Your task to perform on an android device: uninstall "Firefox Browser" Image 0: 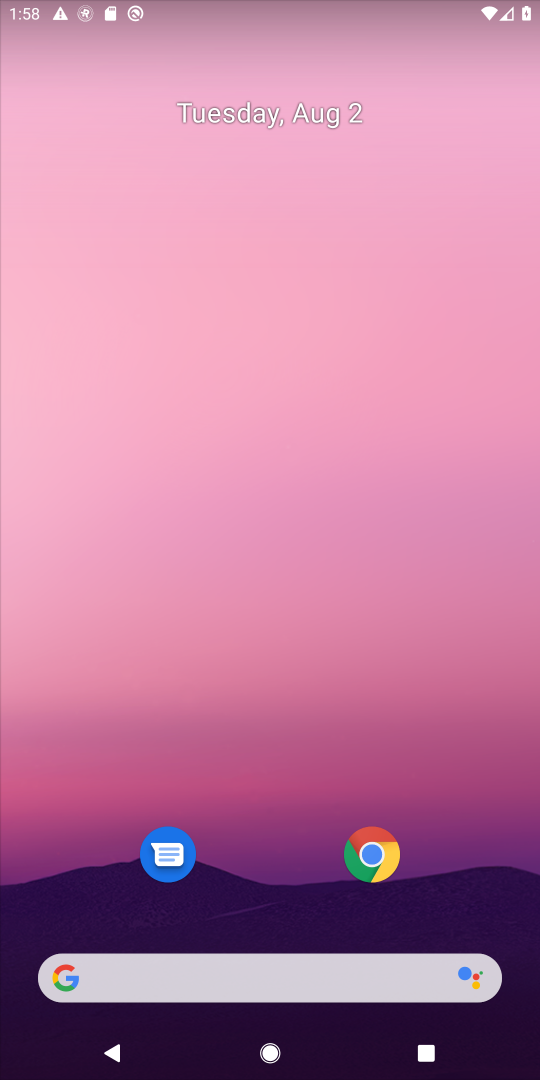
Step 0: drag from (305, 1057) to (230, 170)
Your task to perform on an android device: uninstall "Firefox Browser" Image 1: 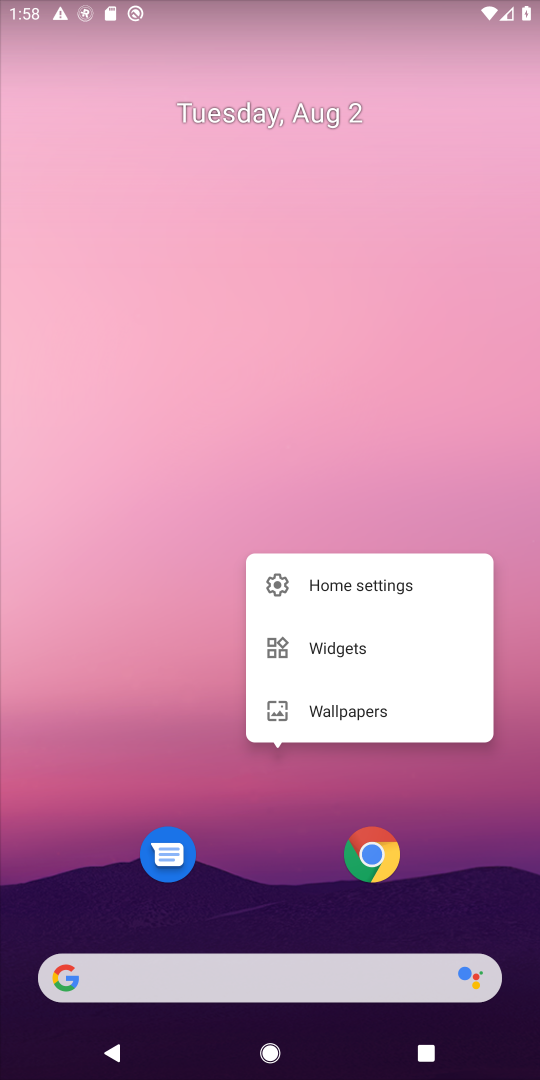
Step 1: click (264, 346)
Your task to perform on an android device: uninstall "Firefox Browser" Image 2: 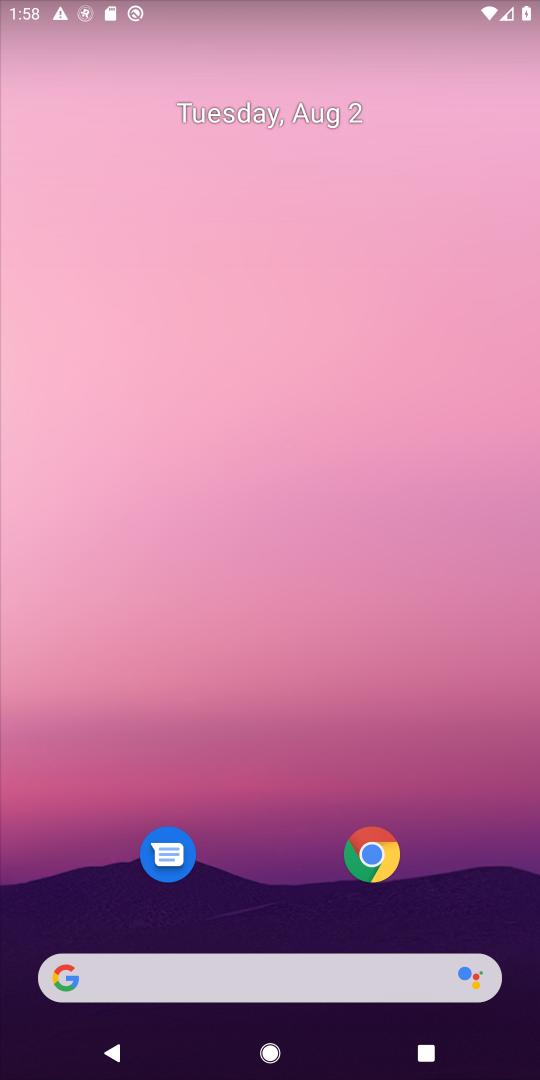
Step 2: drag from (299, 932) to (272, 125)
Your task to perform on an android device: uninstall "Firefox Browser" Image 3: 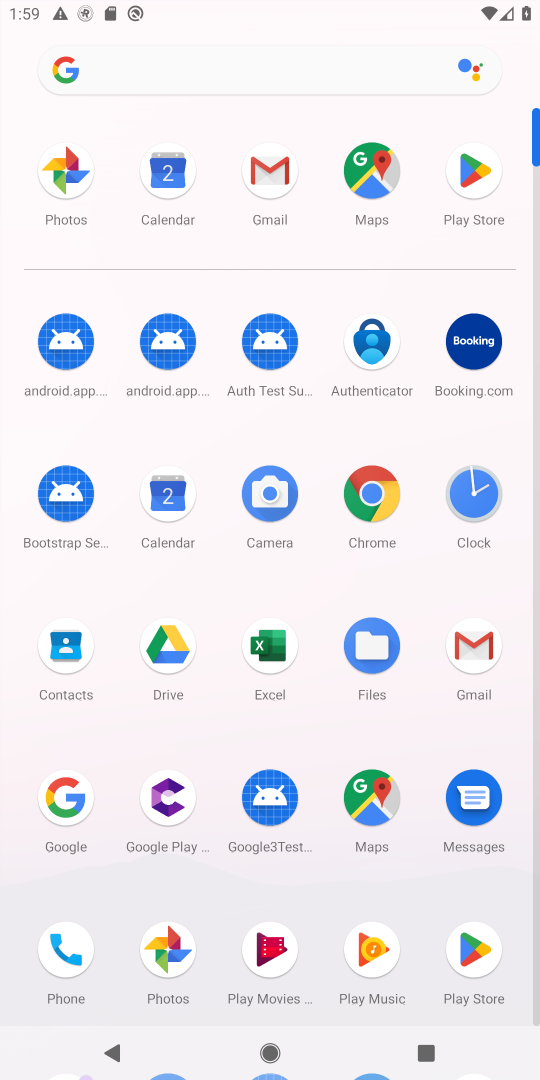
Step 3: click (468, 161)
Your task to perform on an android device: uninstall "Firefox Browser" Image 4: 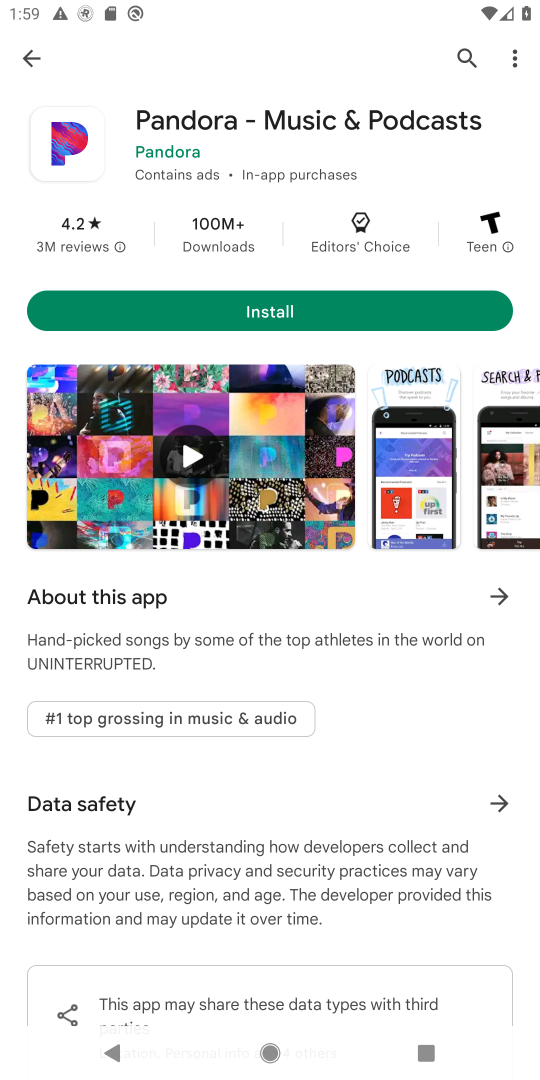
Step 4: click (464, 58)
Your task to perform on an android device: uninstall "Firefox Browser" Image 5: 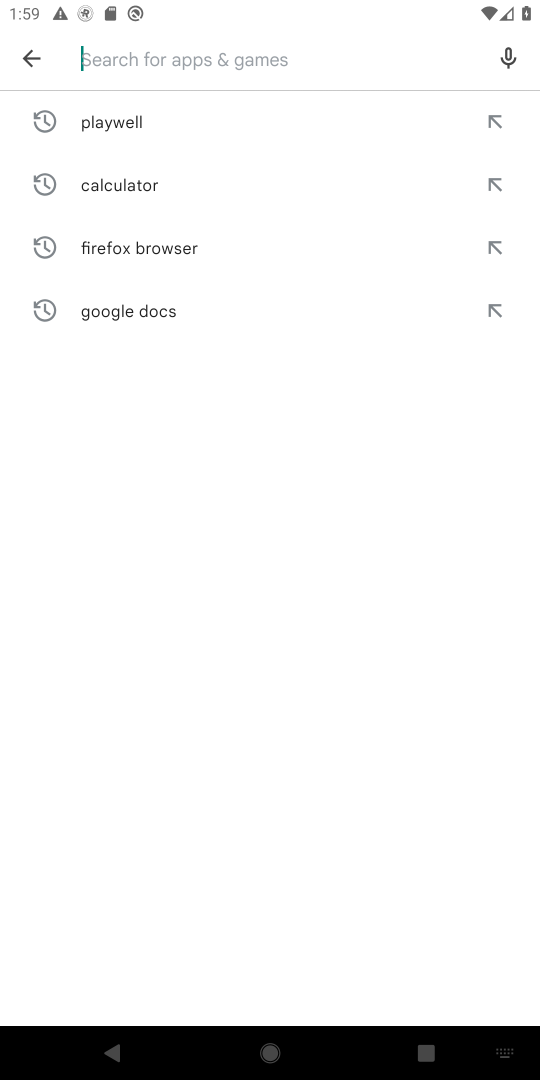
Step 5: type "Firefox Browser"
Your task to perform on an android device: uninstall "Firefox Browser" Image 6: 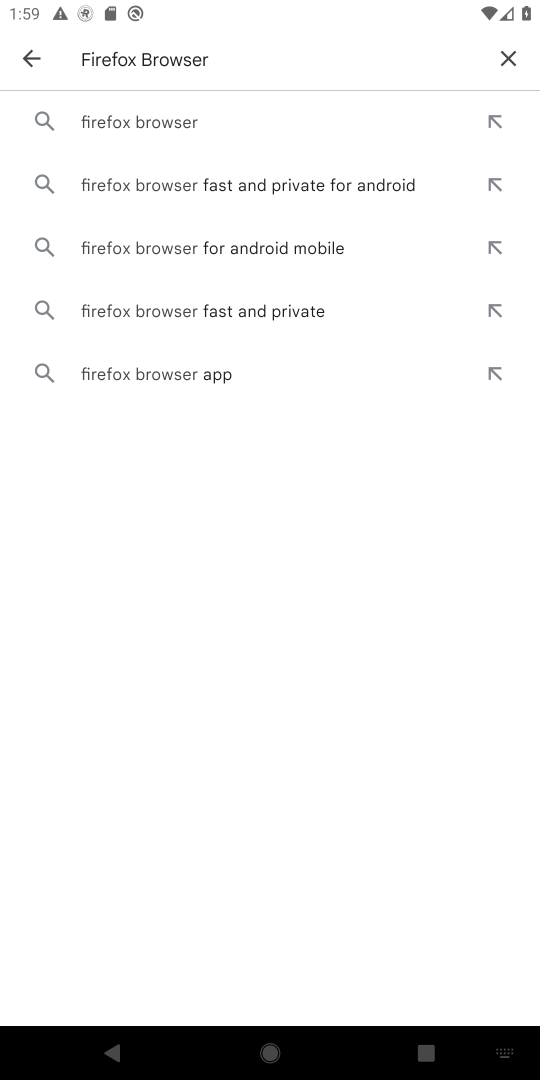
Step 6: click (156, 124)
Your task to perform on an android device: uninstall "Firefox Browser" Image 7: 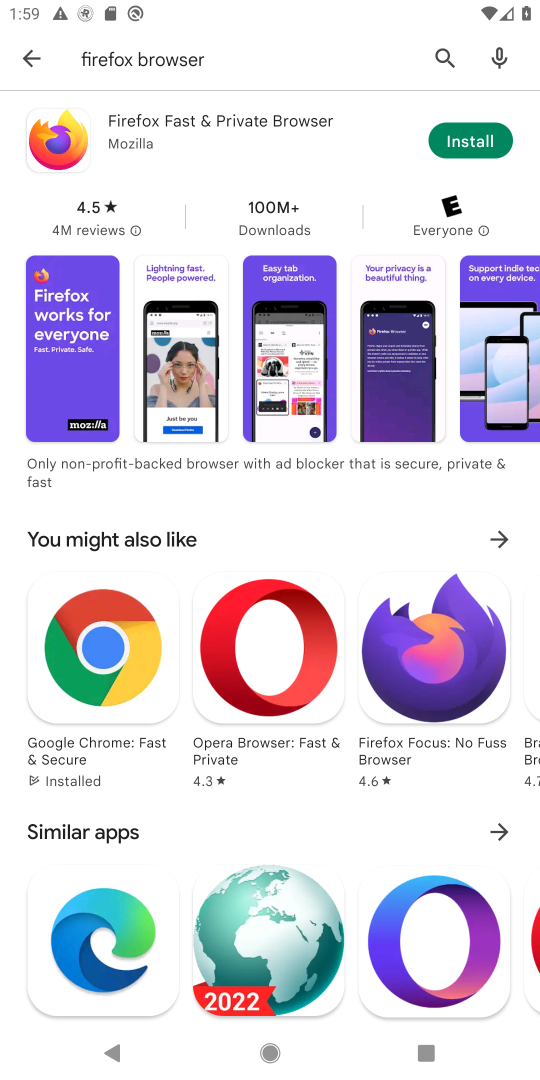
Step 7: click (200, 136)
Your task to perform on an android device: uninstall "Firefox Browser" Image 8: 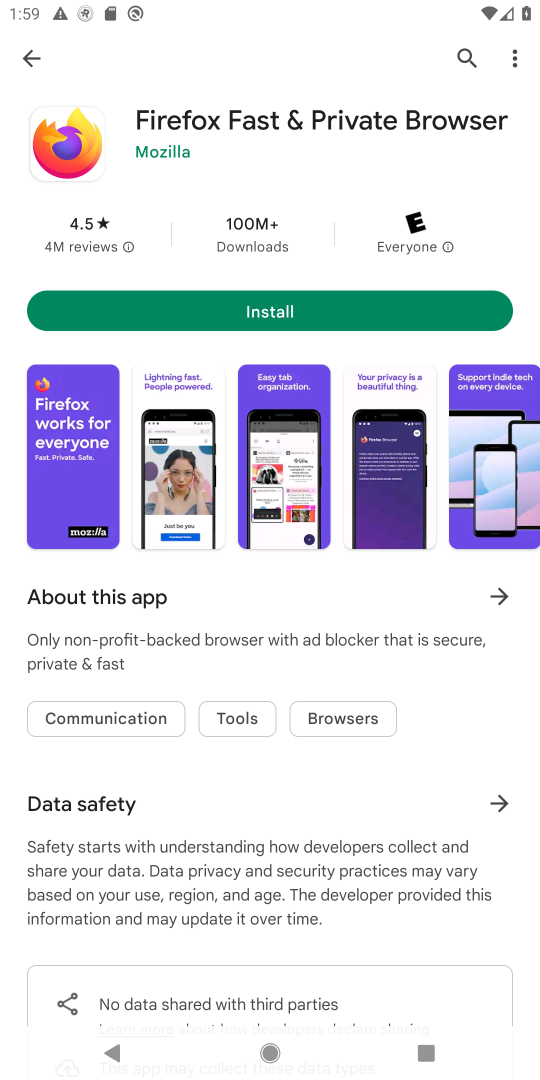
Step 8: task complete